Your task to perform on an android device: Open my contact list Image 0: 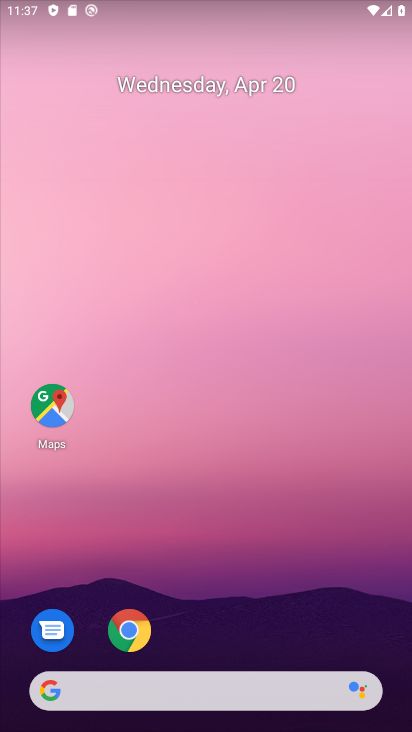
Step 0: drag from (207, 666) to (232, 23)
Your task to perform on an android device: Open my contact list Image 1: 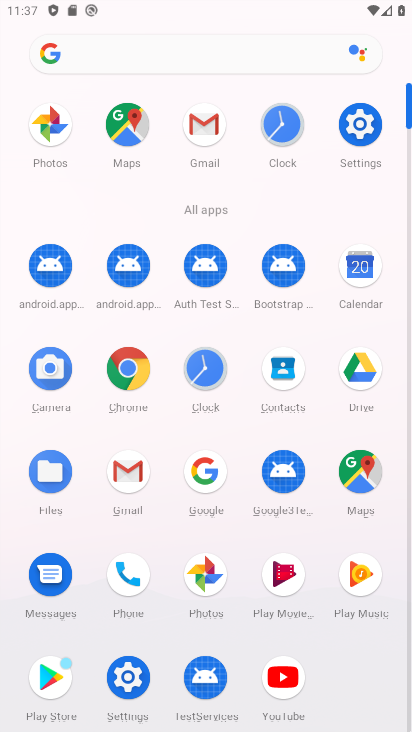
Step 1: click (284, 368)
Your task to perform on an android device: Open my contact list Image 2: 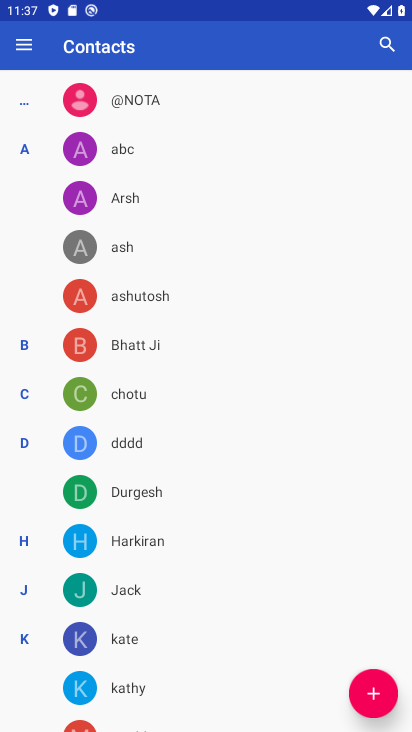
Step 2: task complete